Your task to perform on an android device: Find coffee shops on Maps Image 0: 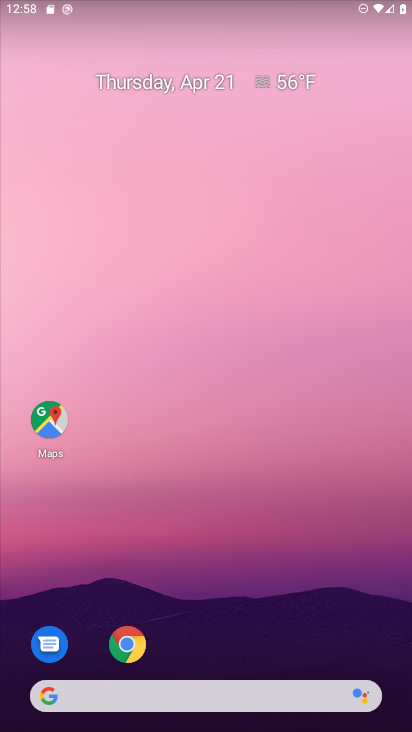
Step 0: drag from (180, 219) to (243, 84)
Your task to perform on an android device: Find coffee shops on Maps Image 1: 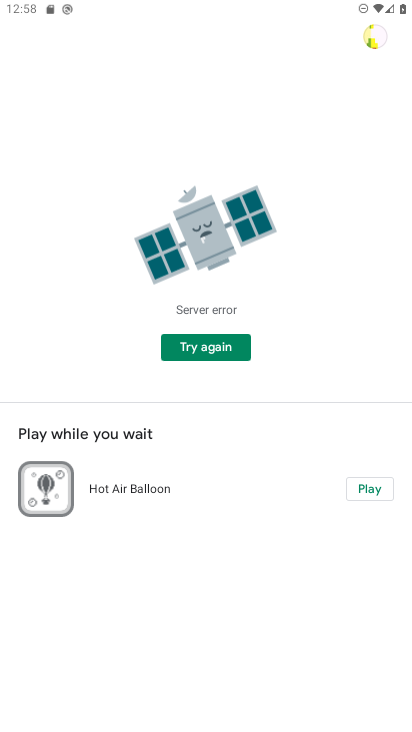
Step 1: press home button
Your task to perform on an android device: Find coffee shops on Maps Image 2: 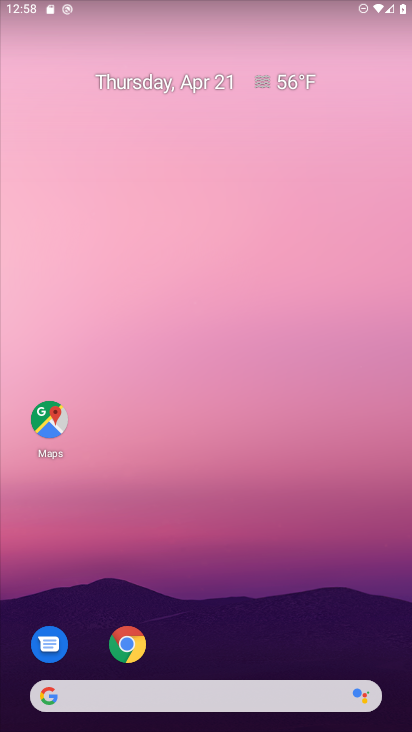
Step 2: drag from (200, 636) to (252, 55)
Your task to perform on an android device: Find coffee shops on Maps Image 3: 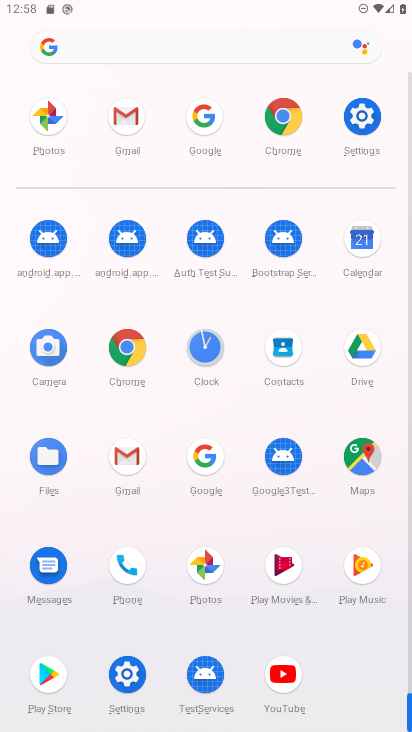
Step 3: click (373, 463)
Your task to perform on an android device: Find coffee shops on Maps Image 4: 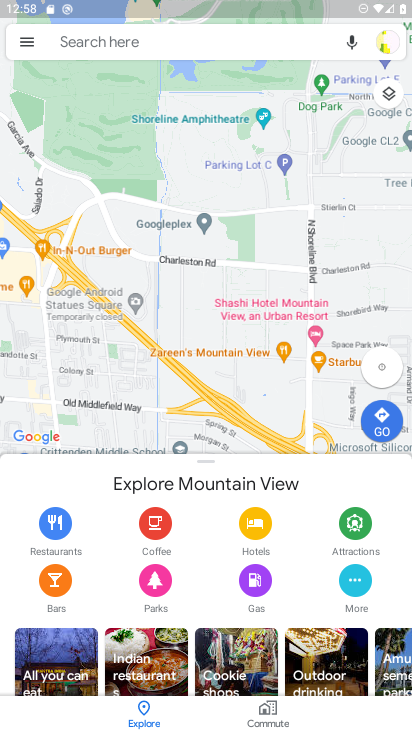
Step 4: click (119, 48)
Your task to perform on an android device: Find coffee shops on Maps Image 5: 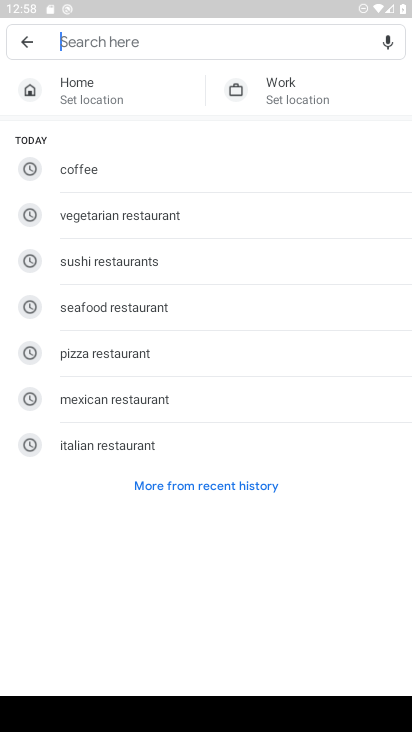
Step 5: type "coffee shops"
Your task to perform on an android device: Find coffee shops on Maps Image 6: 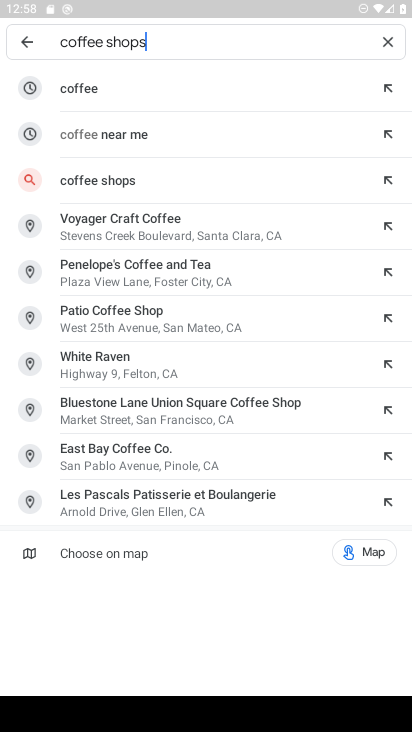
Step 6: click (121, 178)
Your task to perform on an android device: Find coffee shops on Maps Image 7: 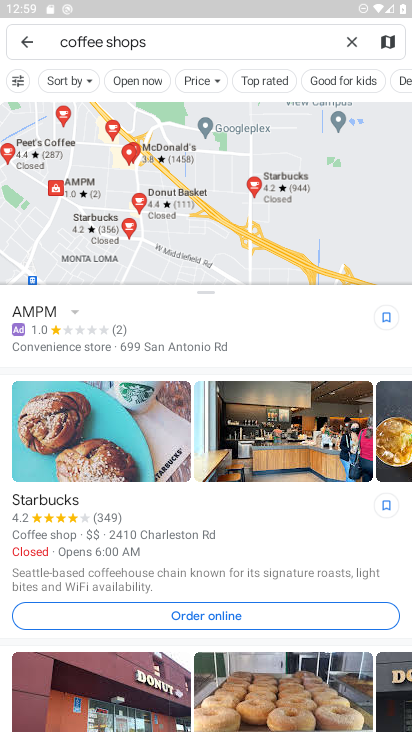
Step 7: task complete